Your task to perform on an android device: toggle location history Image 0: 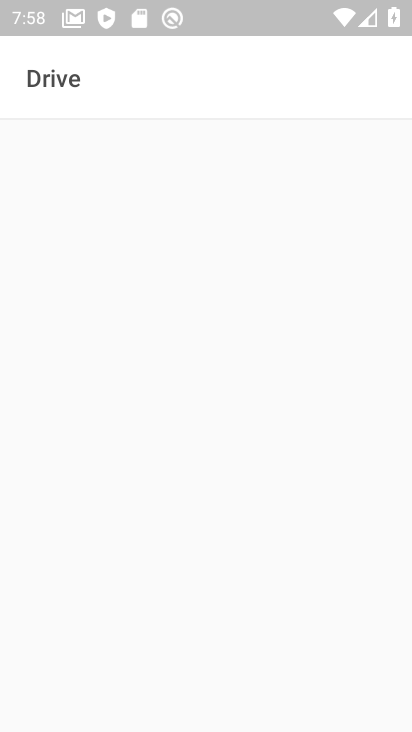
Step 0: press home button
Your task to perform on an android device: toggle location history Image 1: 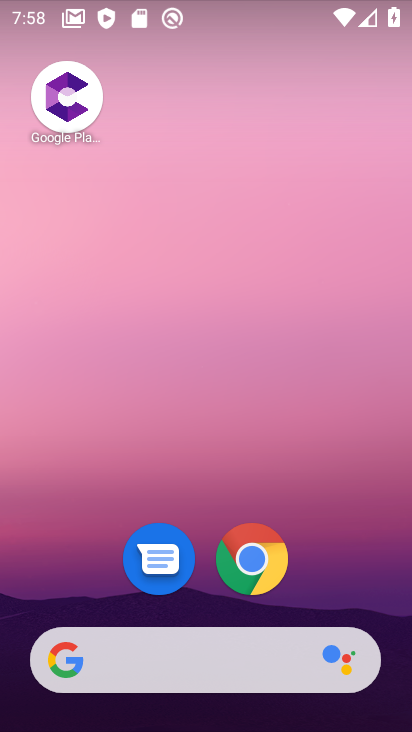
Step 1: drag from (334, 600) to (333, 0)
Your task to perform on an android device: toggle location history Image 2: 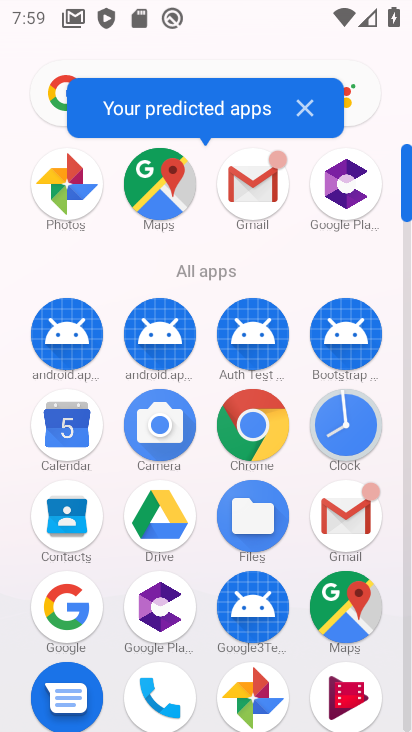
Step 2: click (154, 191)
Your task to perform on an android device: toggle location history Image 3: 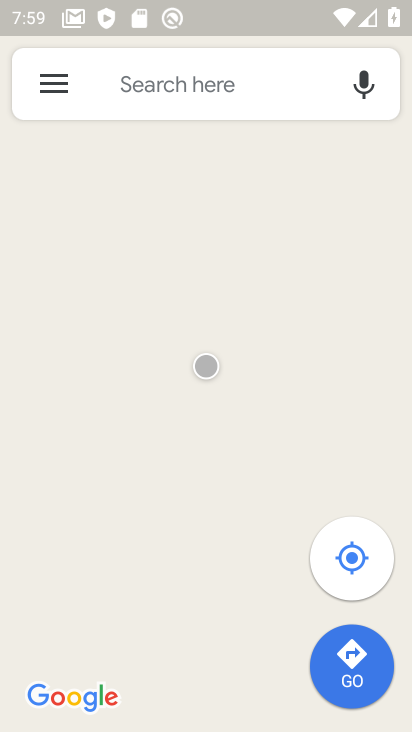
Step 3: click (45, 84)
Your task to perform on an android device: toggle location history Image 4: 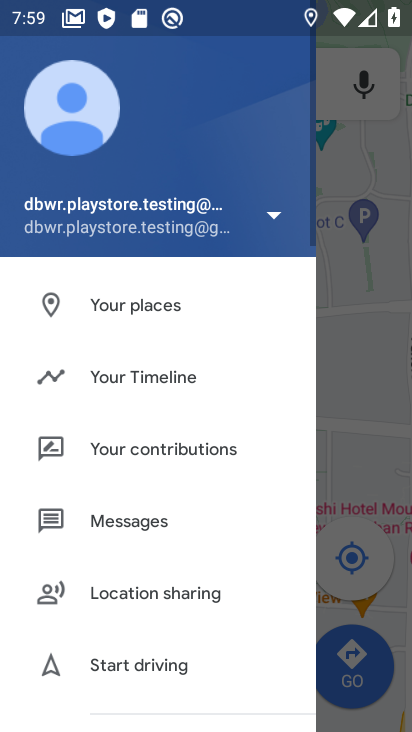
Step 4: click (156, 380)
Your task to perform on an android device: toggle location history Image 5: 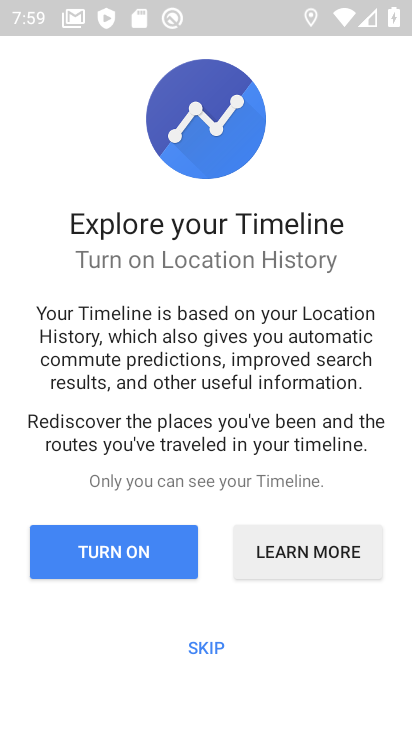
Step 5: click (209, 656)
Your task to perform on an android device: toggle location history Image 6: 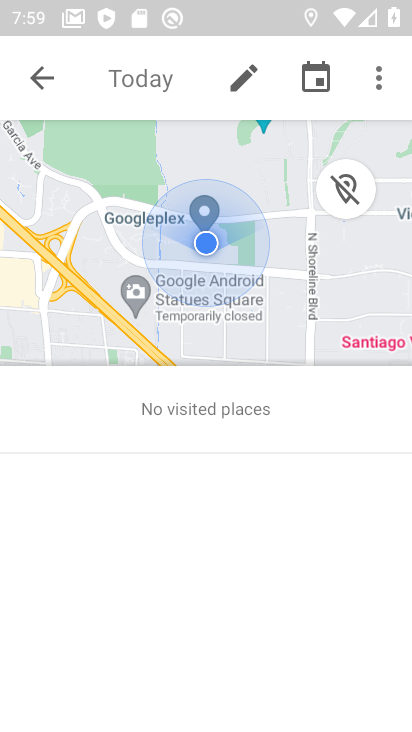
Step 6: click (379, 79)
Your task to perform on an android device: toggle location history Image 7: 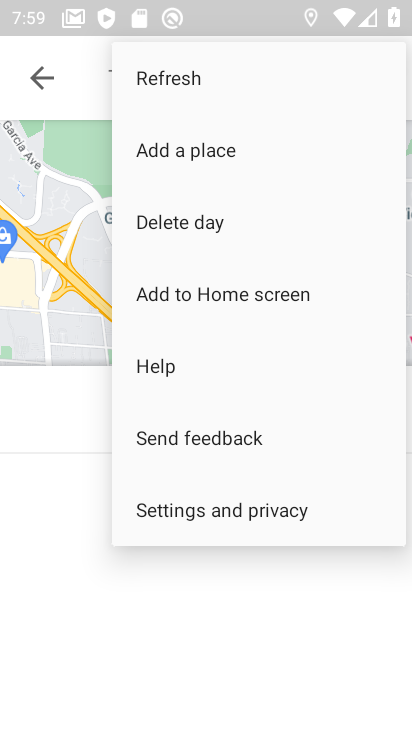
Step 7: click (189, 505)
Your task to perform on an android device: toggle location history Image 8: 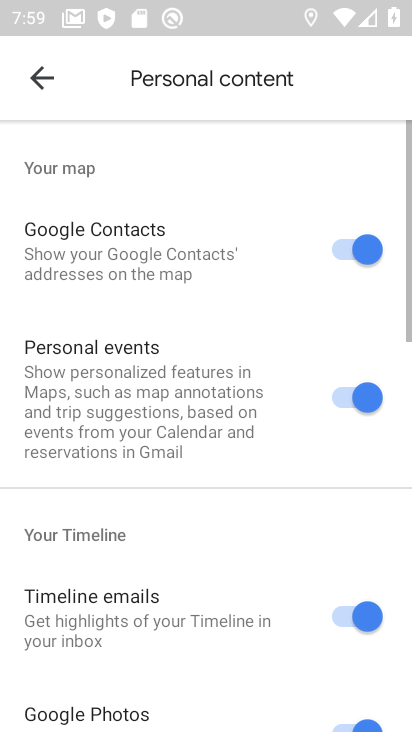
Step 8: drag from (183, 494) to (158, 198)
Your task to perform on an android device: toggle location history Image 9: 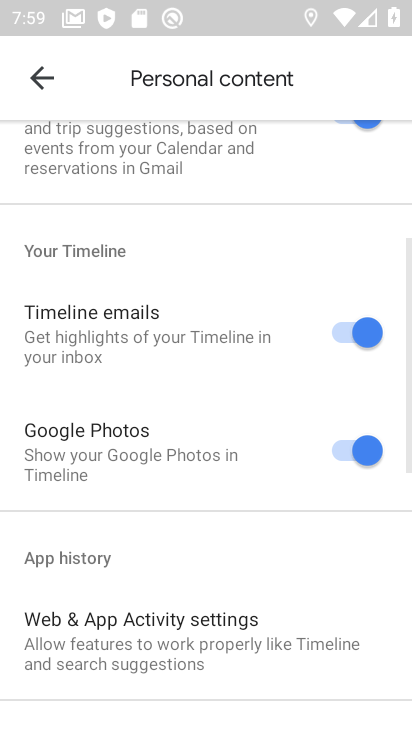
Step 9: drag from (180, 550) to (163, 171)
Your task to perform on an android device: toggle location history Image 10: 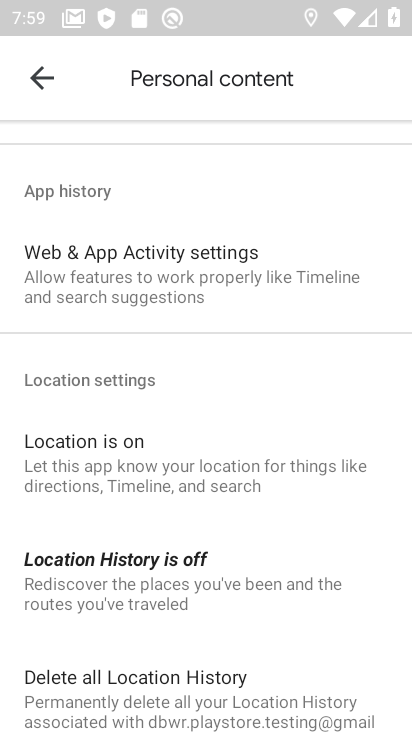
Step 10: drag from (169, 528) to (162, 260)
Your task to perform on an android device: toggle location history Image 11: 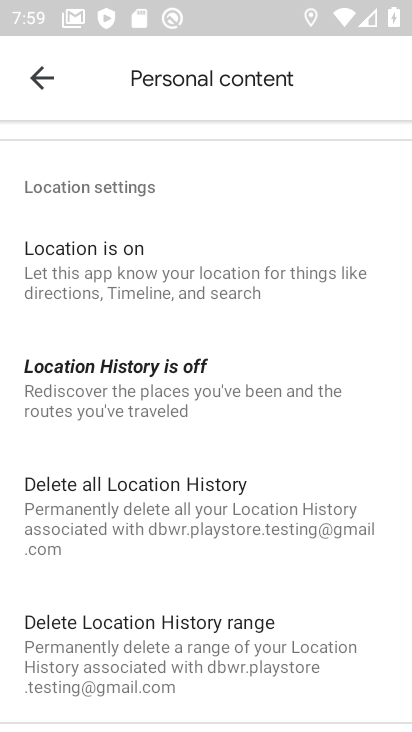
Step 11: click (162, 387)
Your task to perform on an android device: toggle location history Image 12: 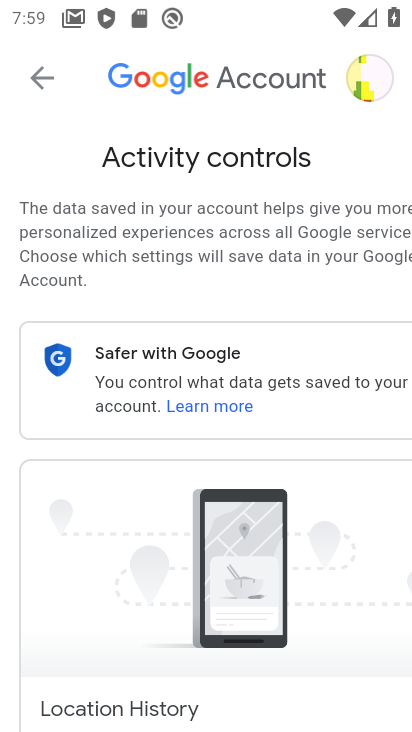
Step 12: drag from (165, 535) to (190, 111)
Your task to perform on an android device: toggle location history Image 13: 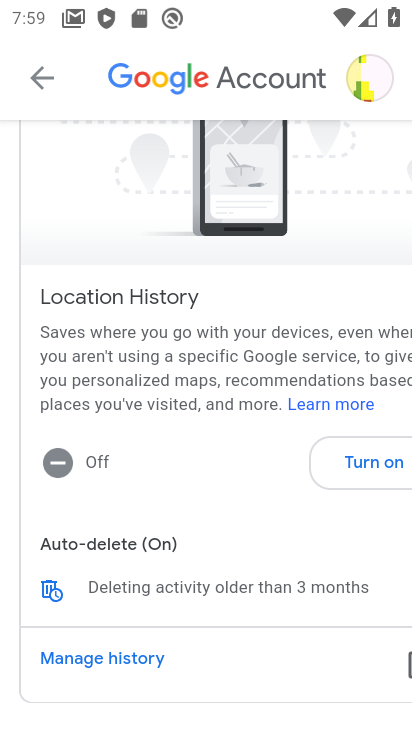
Step 13: click (347, 469)
Your task to perform on an android device: toggle location history Image 14: 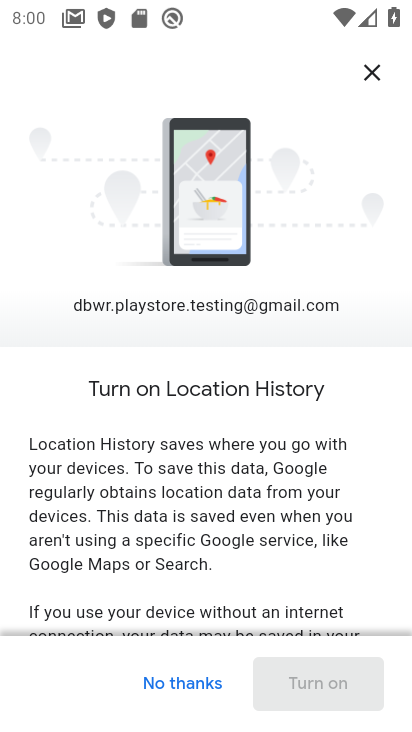
Step 14: drag from (238, 572) to (231, 104)
Your task to perform on an android device: toggle location history Image 15: 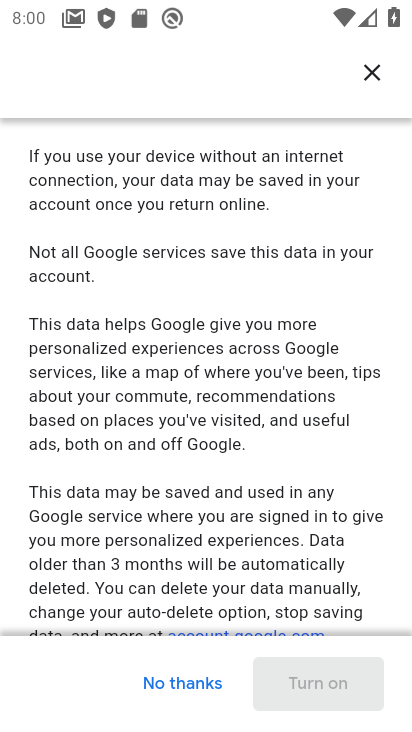
Step 15: drag from (224, 542) to (229, 114)
Your task to perform on an android device: toggle location history Image 16: 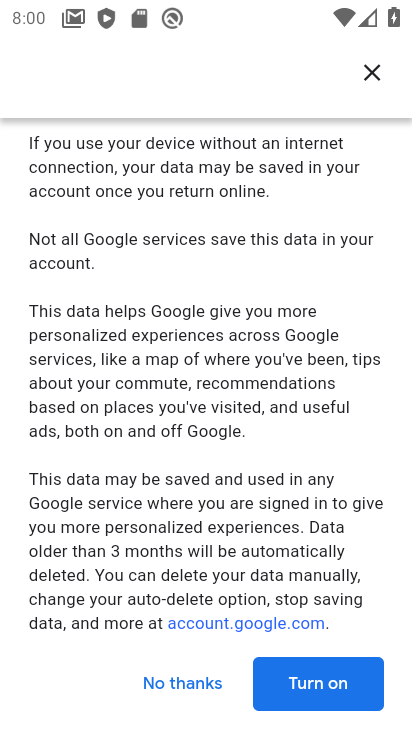
Step 16: click (301, 685)
Your task to perform on an android device: toggle location history Image 17: 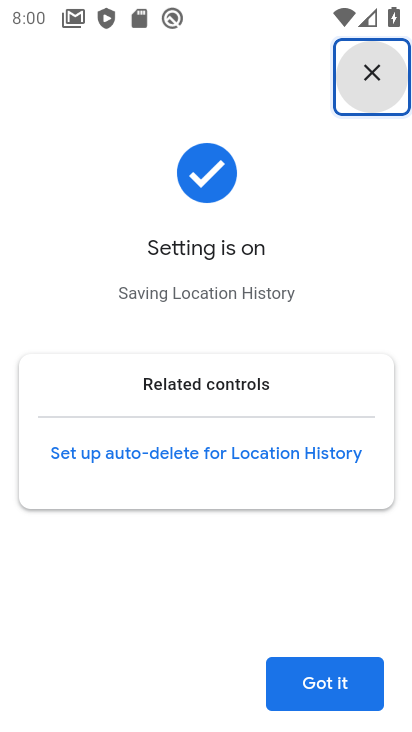
Step 17: click (330, 688)
Your task to perform on an android device: toggle location history Image 18: 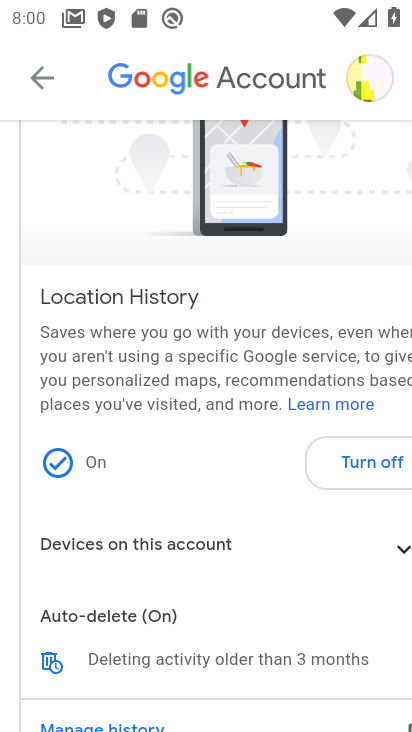
Step 18: task complete